Your task to perform on an android device: uninstall "The Home Depot" Image 0: 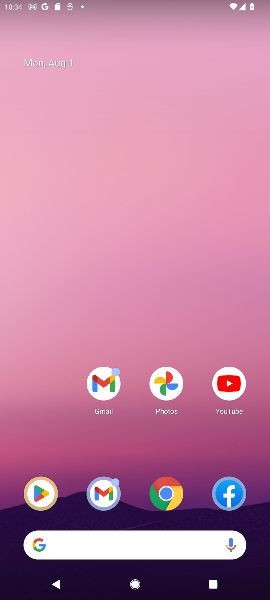
Step 0: task complete